Your task to perform on an android device: find which apps use the phone's location Image 0: 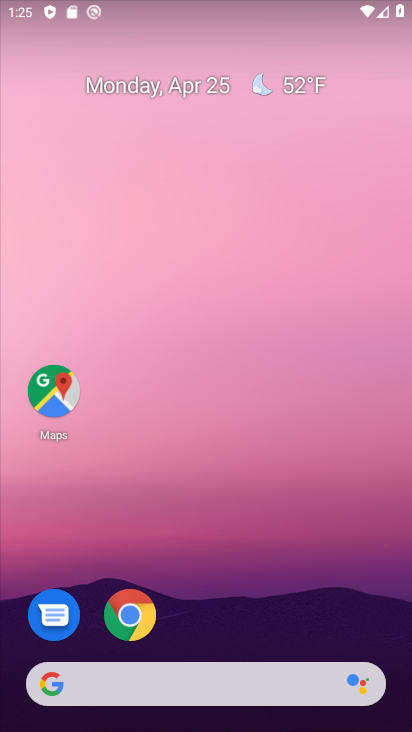
Step 0: drag from (212, 642) to (251, 85)
Your task to perform on an android device: find which apps use the phone's location Image 1: 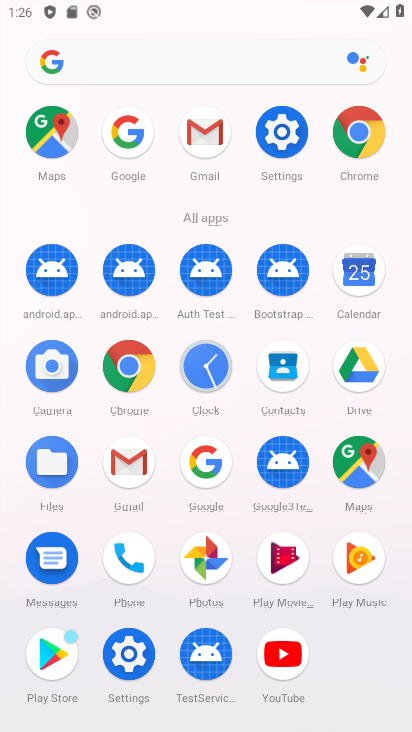
Step 1: click (280, 131)
Your task to perform on an android device: find which apps use the phone's location Image 2: 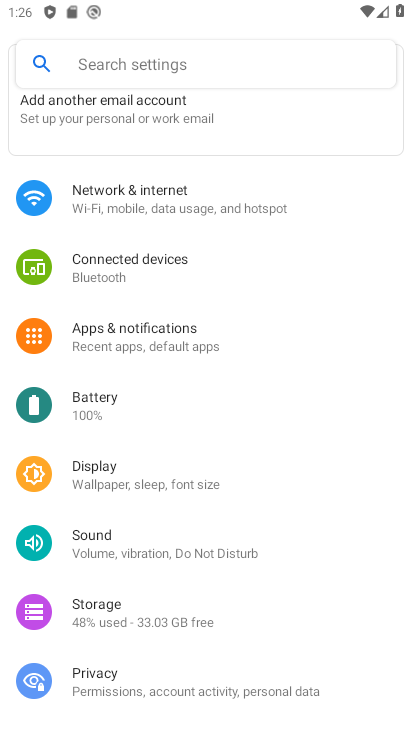
Step 2: drag from (179, 536) to (204, 424)
Your task to perform on an android device: find which apps use the phone's location Image 3: 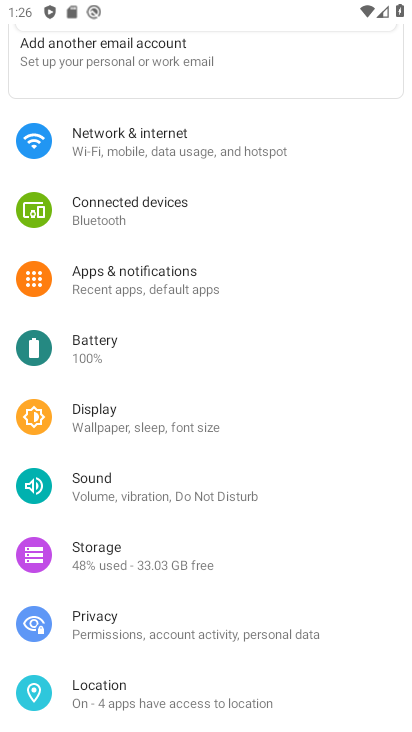
Step 3: drag from (204, 592) to (268, 501)
Your task to perform on an android device: find which apps use the phone's location Image 4: 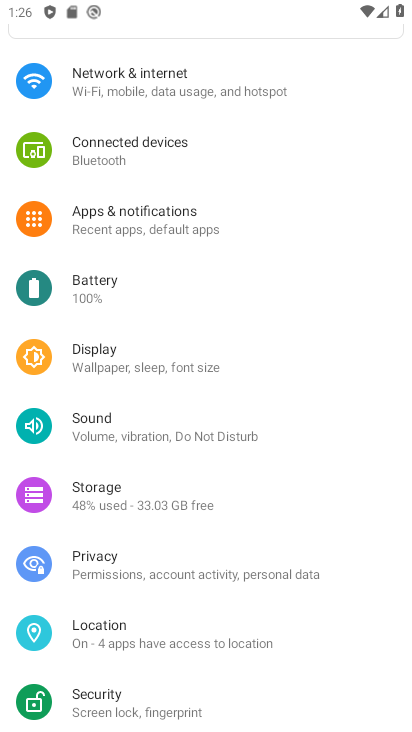
Step 4: click (163, 643)
Your task to perform on an android device: find which apps use the phone's location Image 5: 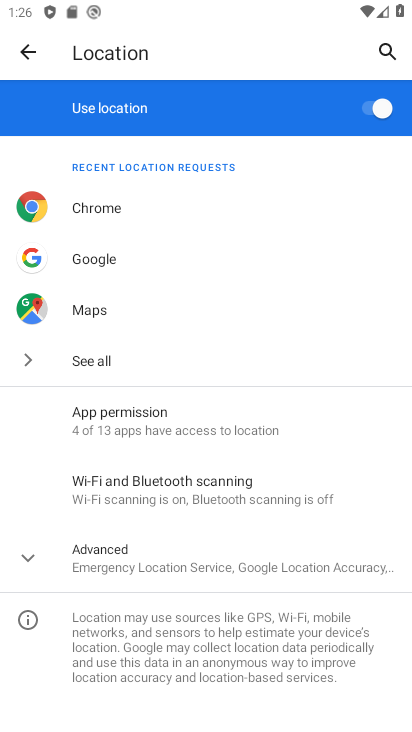
Step 5: click (224, 424)
Your task to perform on an android device: find which apps use the phone's location Image 6: 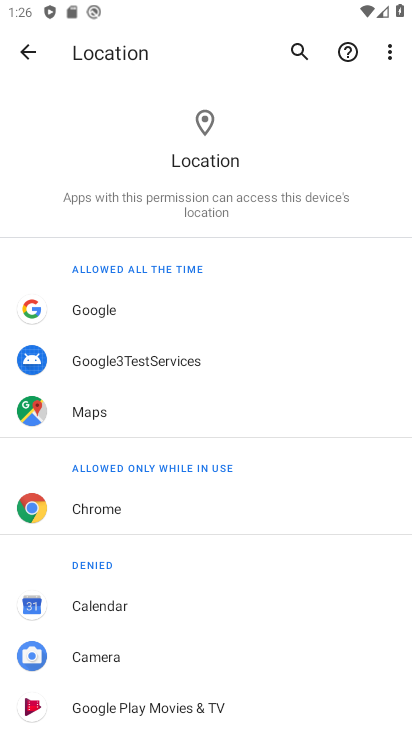
Step 6: click (123, 406)
Your task to perform on an android device: find which apps use the phone's location Image 7: 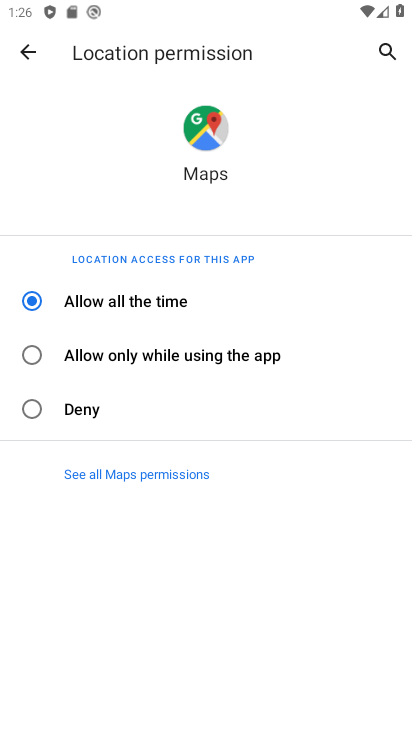
Step 7: task complete